Your task to perform on an android device: see sites visited before in the chrome app Image 0: 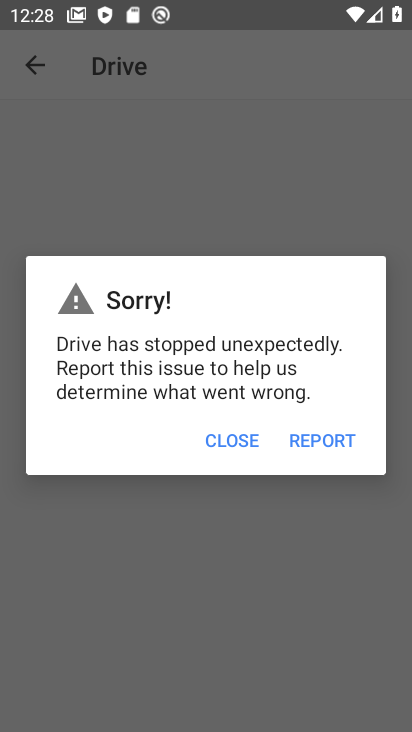
Step 0: press home button
Your task to perform on an android device: see sites visited before in the chrome app Image 1: 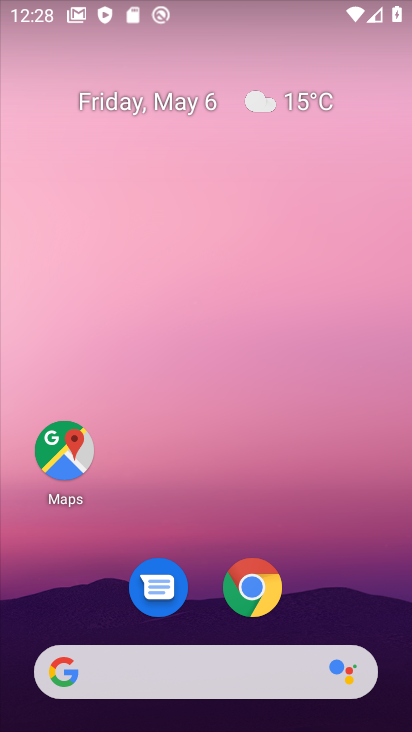
Step 1: click (253, 588)
Your task to perform on an android device: see sites visited before in the chrome app Image 2: 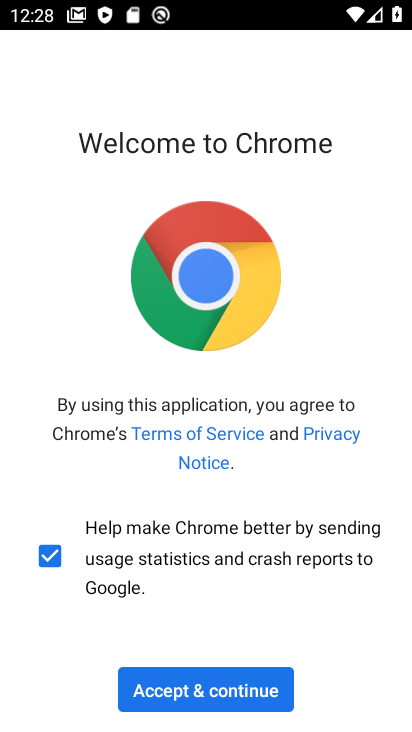
Step 2: click (230, 690)
Your task to perform on an android device: see sites visited before in the chrome app Image 3: 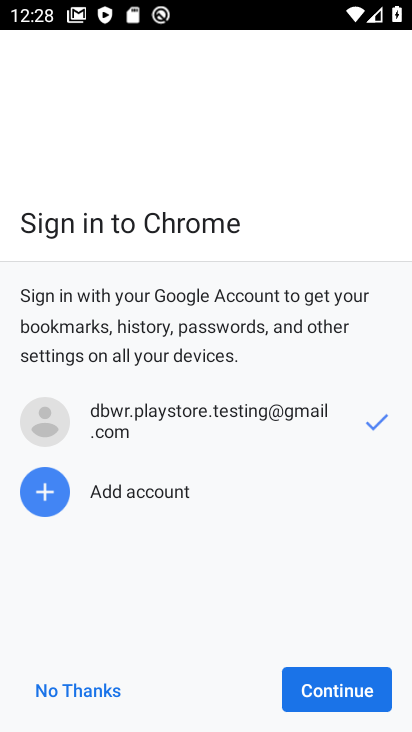
Step 3: click (321, 692)
Your task to perform on an android device: see sites visited before in the chrome app Image 4: 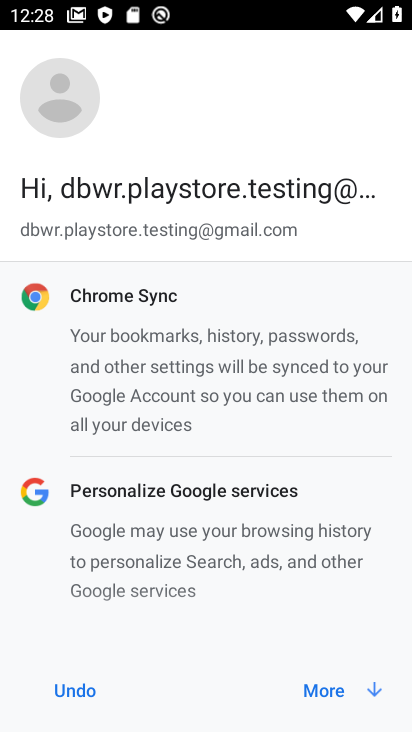
Step 4: click (349, 689)
Your task to perform on an android device: see sites visited before in the chrome app Image 5: 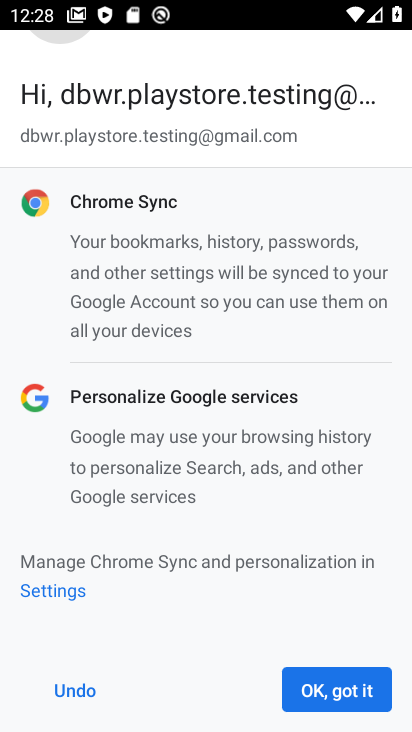
Step 5: click (338, 687)
Your task to perform on an android device: see sites visited before in the chrome app Image 6: 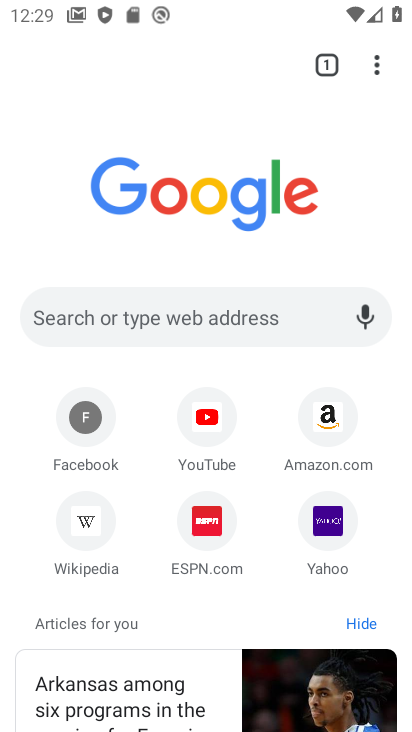
Step 6: click (375, 69)
Your task to perform on an android device: see sites visited before in the chrome app Image 7: 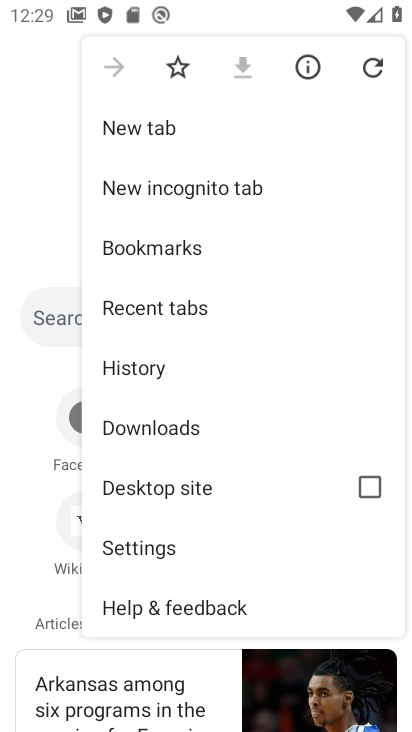
Step 7: click (157, 367)
Your task to perform on an android device: see sites visited before in the chrome app Image 8: 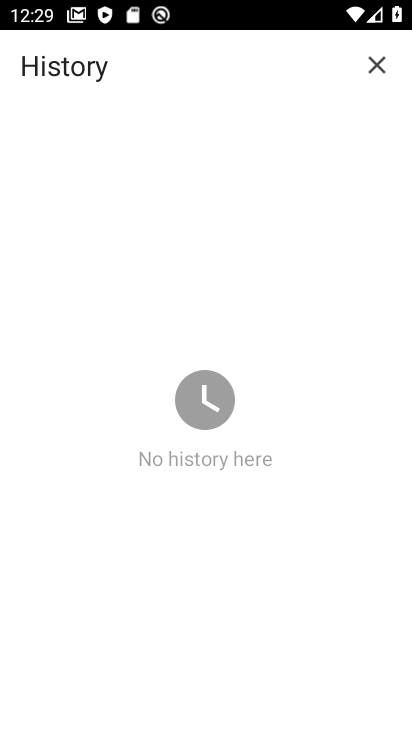
Step 8: task complete